Your task to perform on an android device: Go to notification settings Image 0: 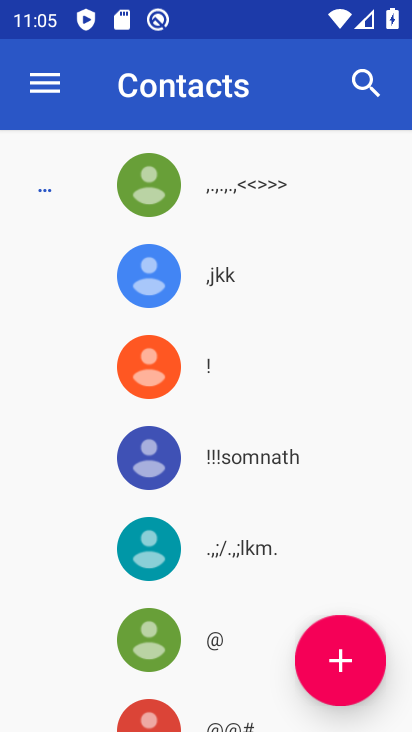
Step 0: press home button
Your task to perform on an android device: Go to notification settings Image 1: 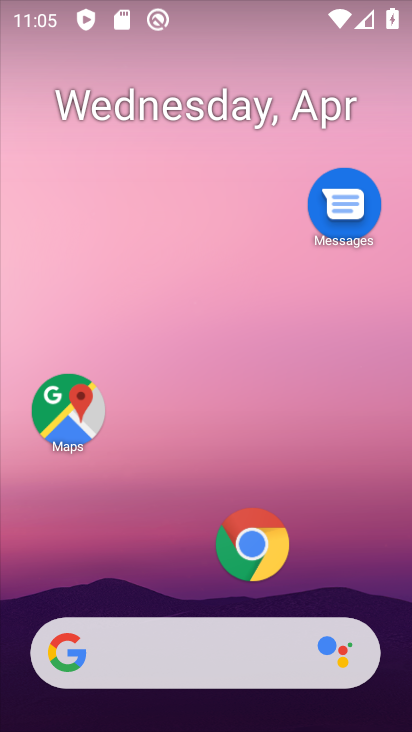
Step 1: drag from (205, 605) to (289, 24)
Your task to perform on an android device: Go to notification settings Image 2: 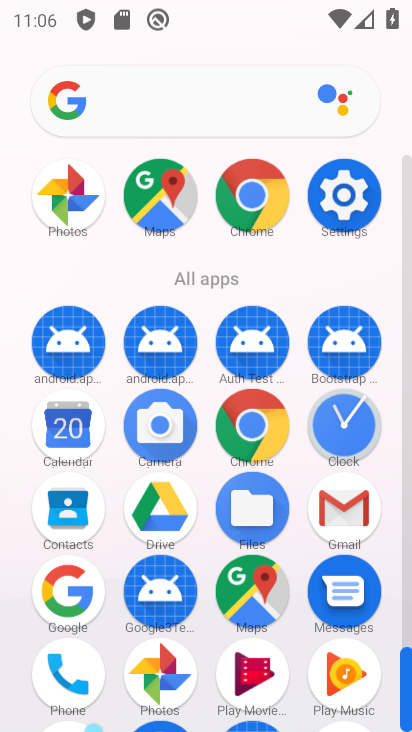
Step 2: click (344, 203)
Your task to perform on an android device: Go to notification settings Image 3: 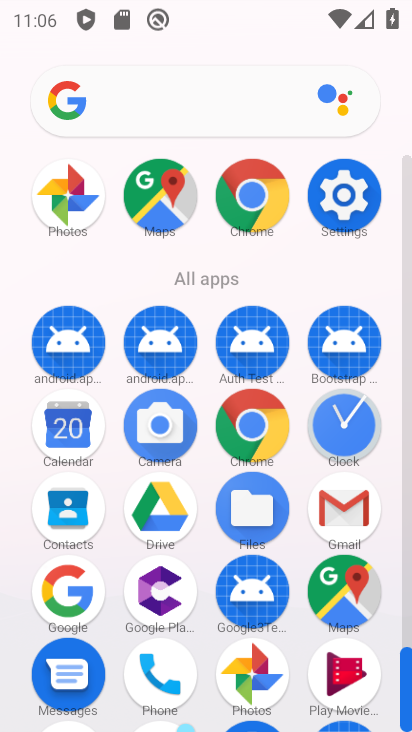
Step 3: click (335, 180)
Your task to perform on an android device: Go to notification settings Image 4: 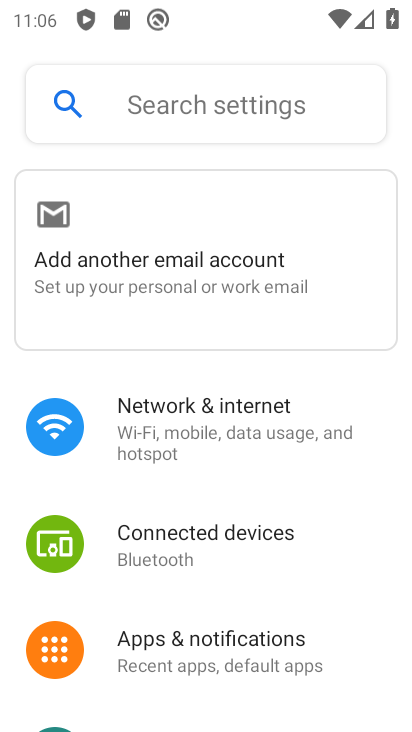
Step 4: drag from (161, 574) to (174, 154)
Your task to perform on an android device: Go to notification settings Image 5: 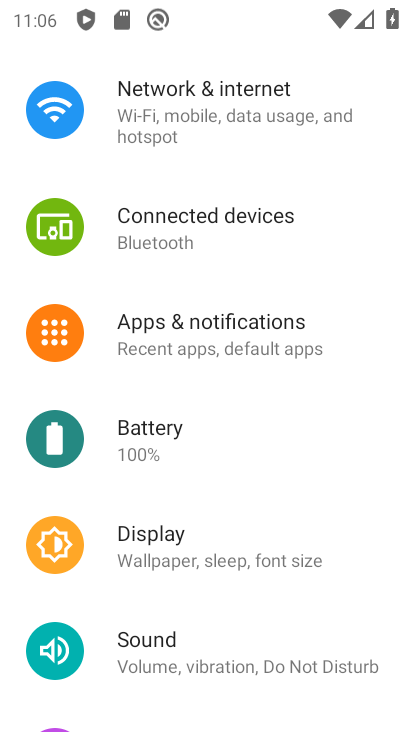
Step 5: click (185, 345)
Your task to perform on an android device: Go to notification settings Image 6: 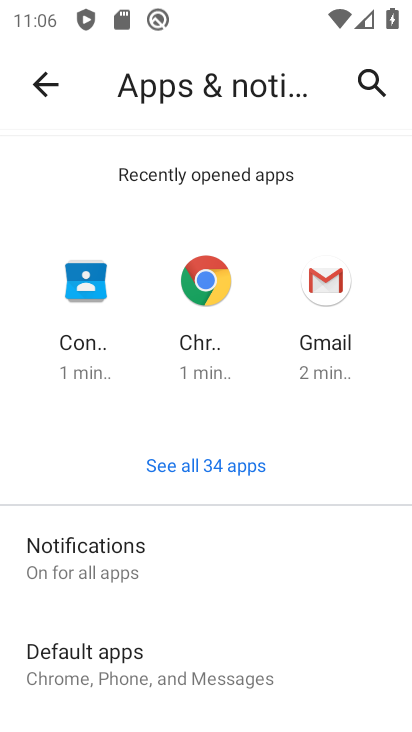
Step 6: click (235, 552)
Your task to perform on an android device: Go to notification settings Image 7: 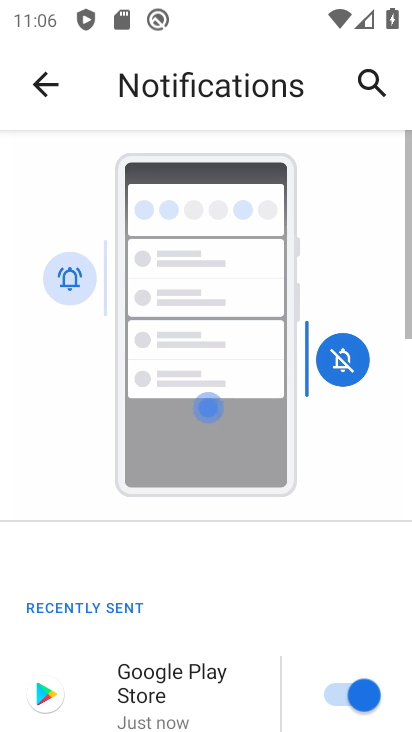
Step 7: task complete